Your task to perform on an android device: Show me recent news Image 0: 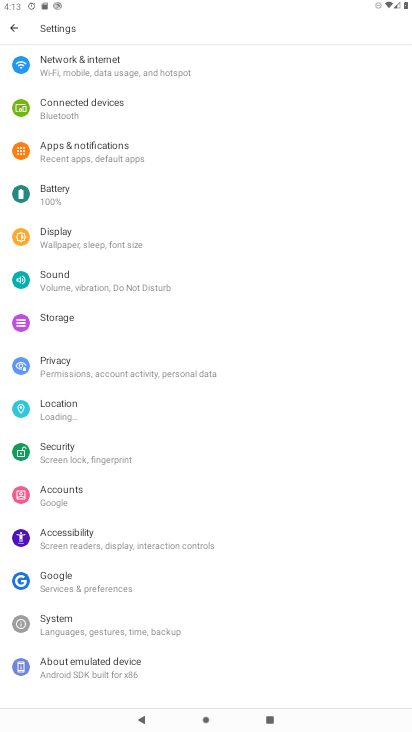
Step 0: drag from (346, 649) to (287, 120)
Your task to perform on an android device: Show me recent news Image 1: 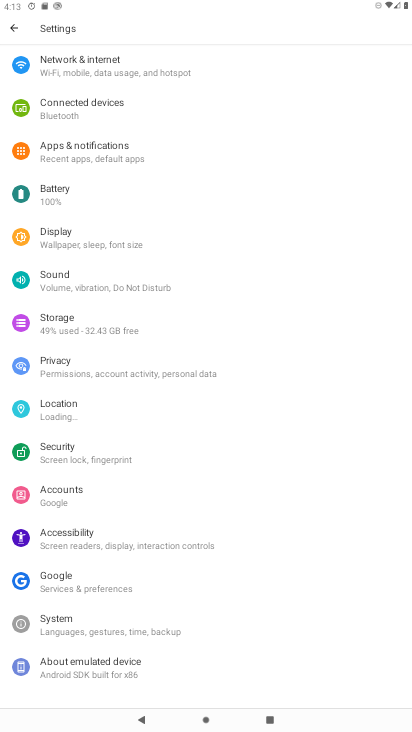
Step 1: press home button
Your task to perform on an android device: Show me recent news Image 2: 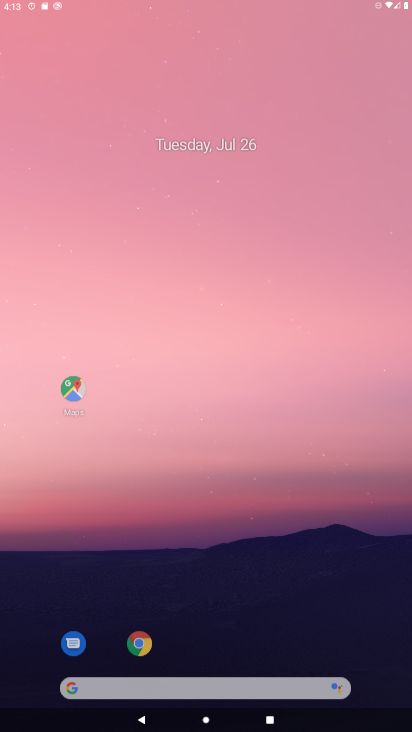
Step 2: drag from (402, 690) to (178, 28)
Your task to perform on an android device: Show me recent news Image 3: 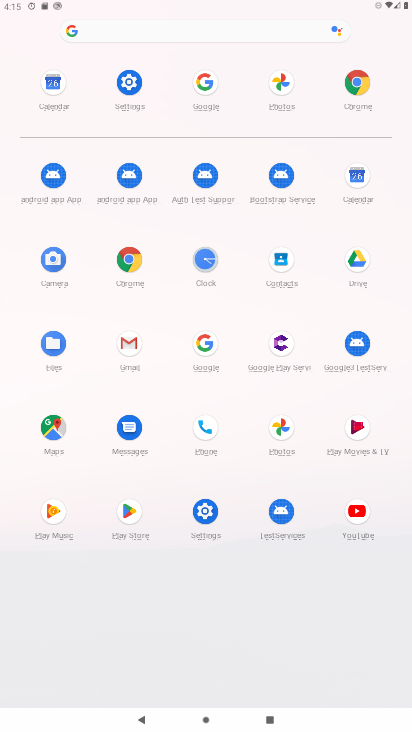
Step 3: click (204, 340)
Your task to perform on an android device: Show me recent news Image 4: 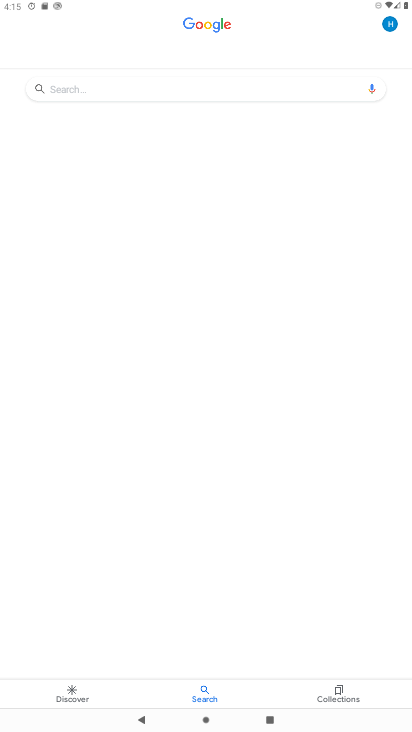
Step 4: click (113, 96)
Your task to perform on an android device: Show me recent news Image 5: 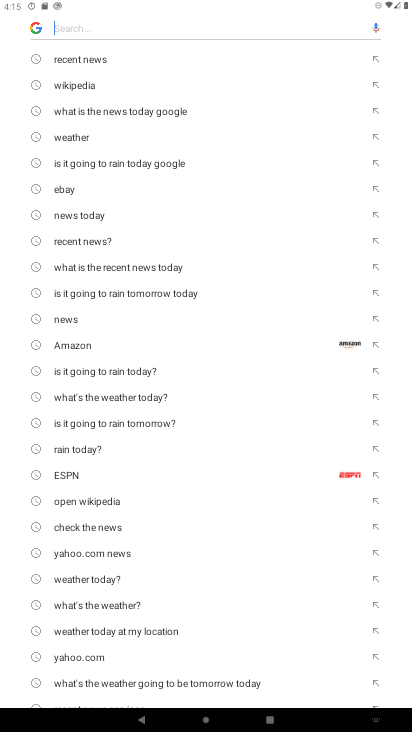
Step 5: click (85, 64)
Your task to perform on an android device: Show me recent news Image 6: 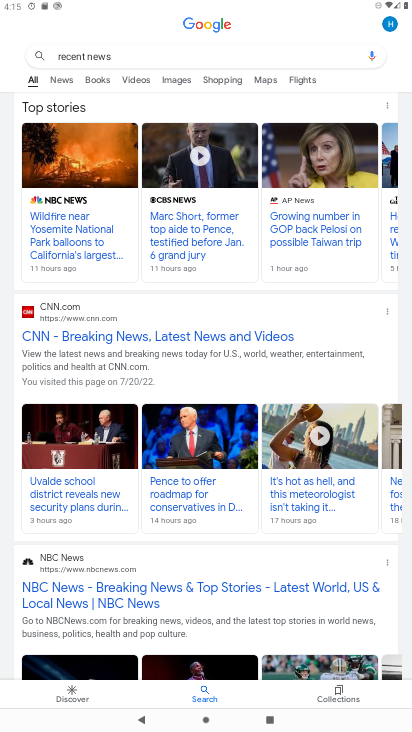
Step 6: task complete